Your task to perform on an android device: change notification settings in the gmail app Image 0: 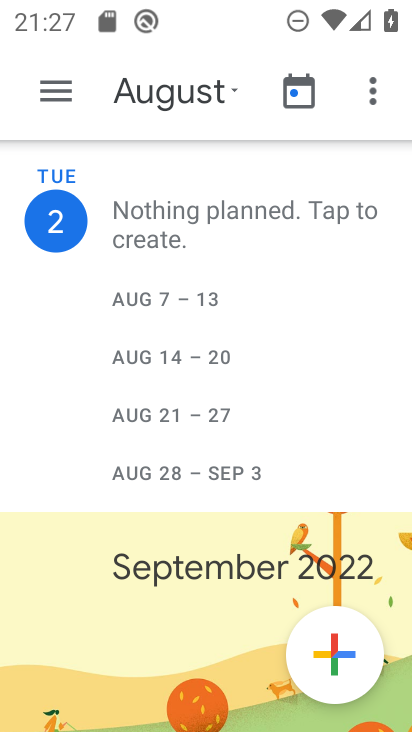
Step 0: drag from (212, 627) to (244, 220)
Your task to perform on an android device: change notification settings in the gmail app Image 1: 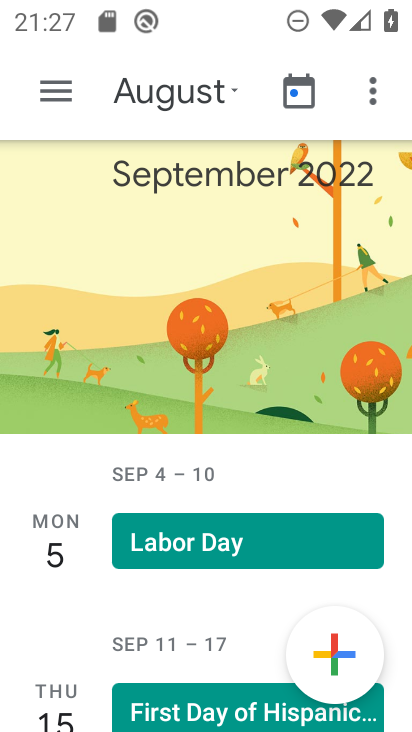
Step 1: press home button
Your task to perform on an android device: change notification settings in the gmail app Image 2: 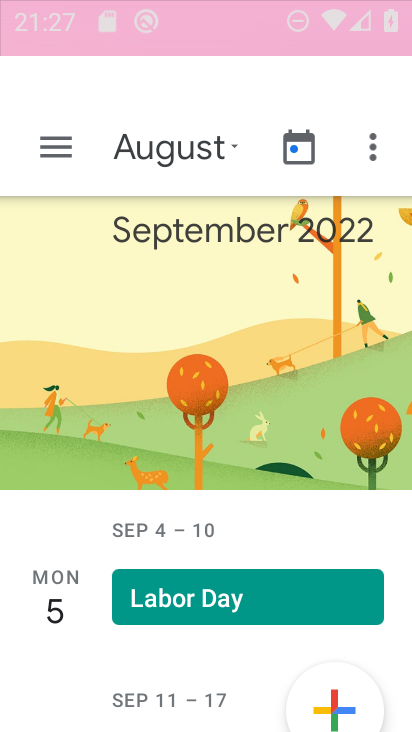
Step 2: drag from (212, 633) to (274, 103)
Your task to perform on an android device: change notification settings in the gmail app Image 3: 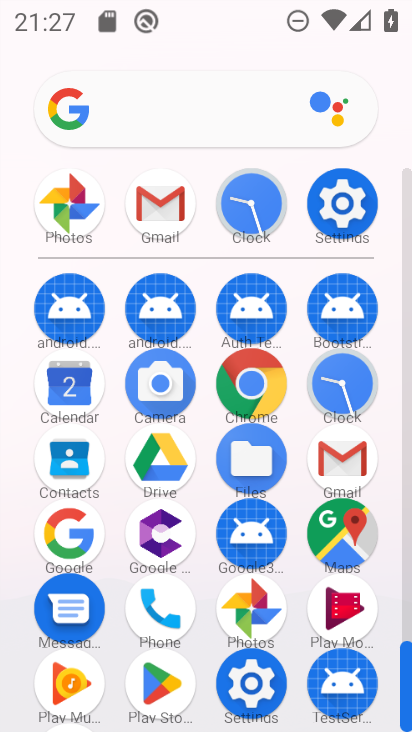
Step 3: click (333, 442)
Your task to perform on an android device: change notification settings in the gmail app Image 4: 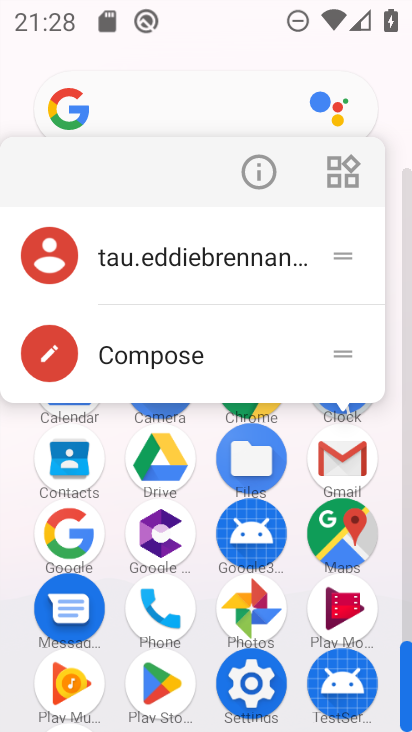
Step 4: click (270, 170)
Your task to perform on an android device: change notification settings in the gmail app Image 5: 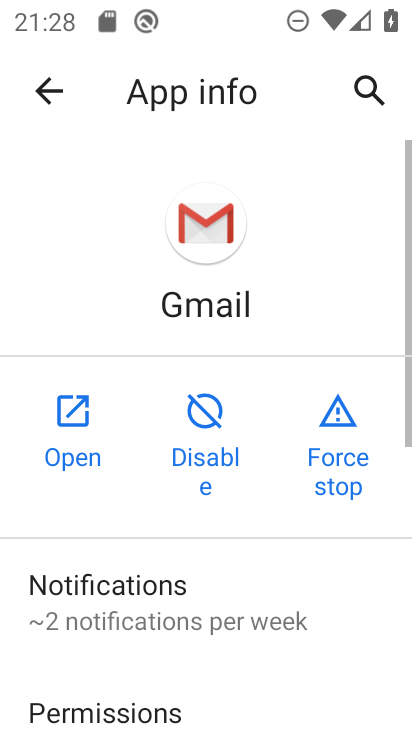
Step 5: click (81, 397)
Your task to perform on an android device: change notification settings in the gmail app Image 6: 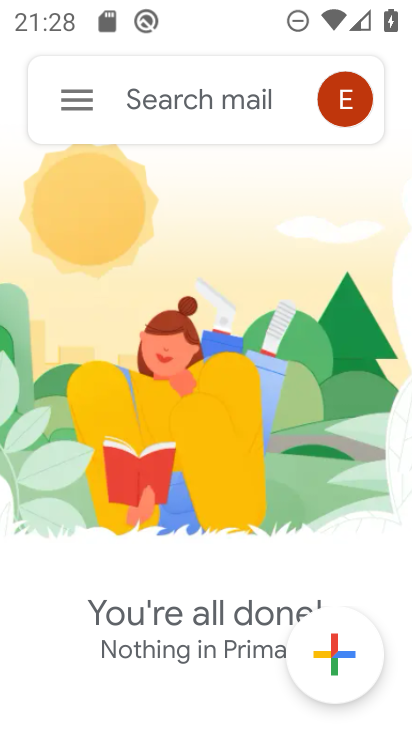
Step 6: drag from (218, 604) to (251, 312)
Your task to perform on an android device: change notification settings in the gmail app Image 7: 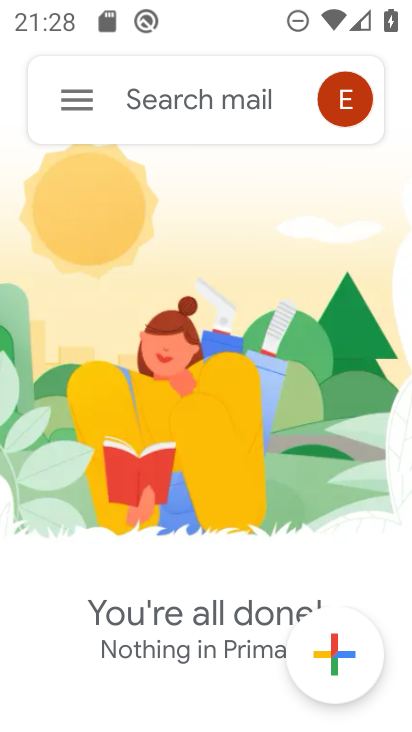
Step 7: click (65, 103)
Your task to perform on an android device: change notification settings in the gmail app Image 8: 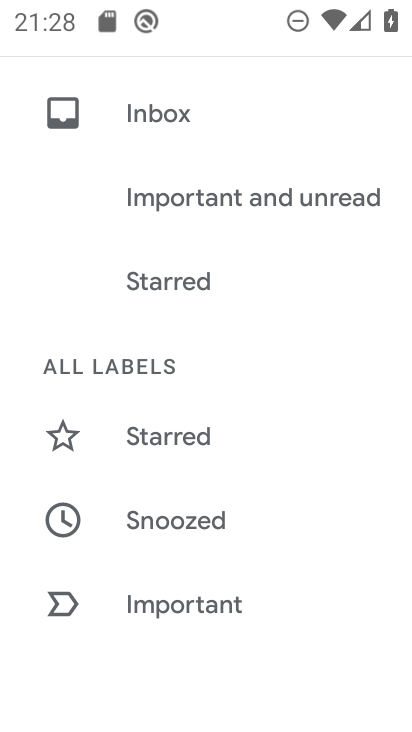
Step 8: drag from (187, 611) to (323, 175)
Your task to perform on an android device: change notification settings in the gmail app Image 9: 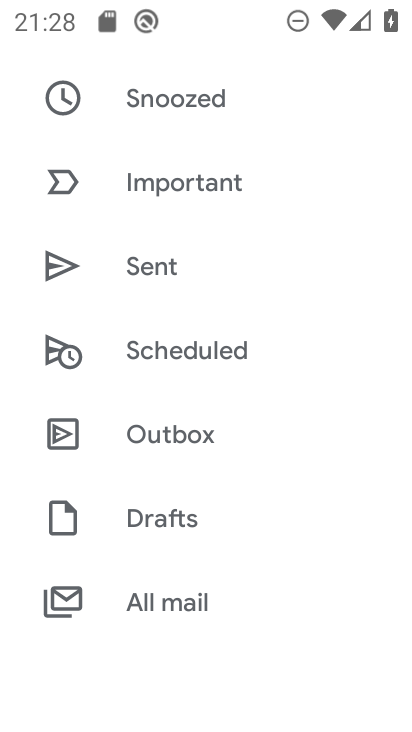
Step 9: drag from (204, 510) to (282, 120)
Your task to perform on an android device: change notification settings in the gmail app Image 10: 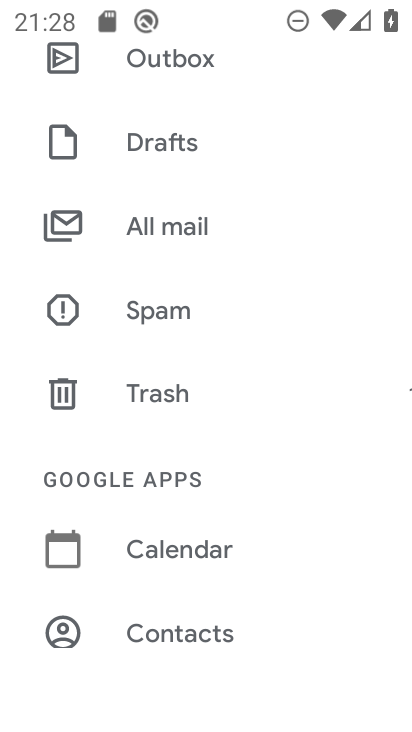
Step 10: drag from (163, 596) to (106, 87)
Your task to perform on an android device: change notification settings in the gmail app Image 11: 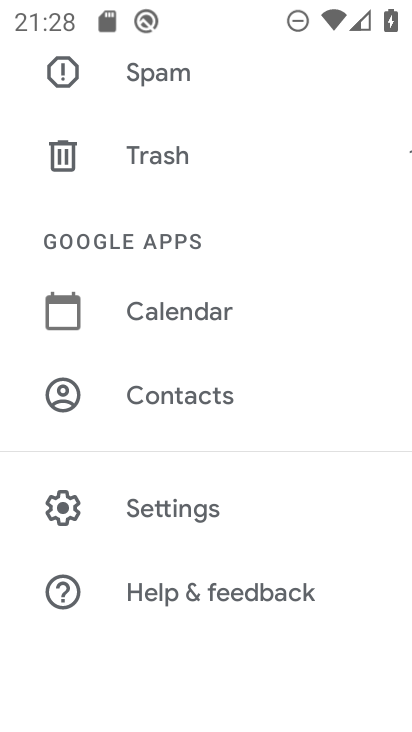
Step 11: click (185, 494)
Your task to perform on an android device: change notification settings in the gmail app Image 12: 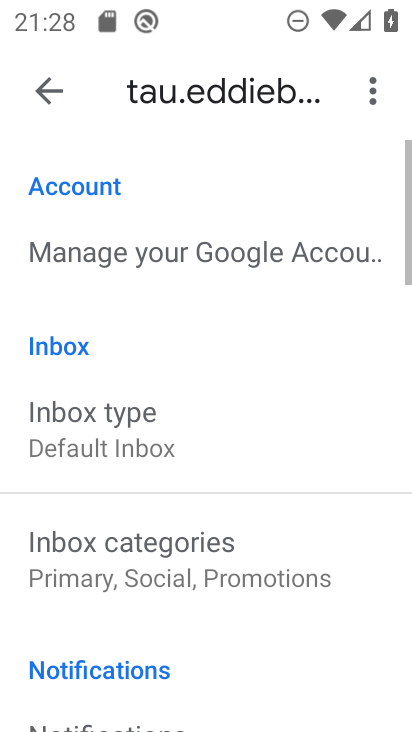
Step 12: drag from (240, 538) to (248, 288)
Your task to perform on an android device: change notification settings in the gmail app Image 13: 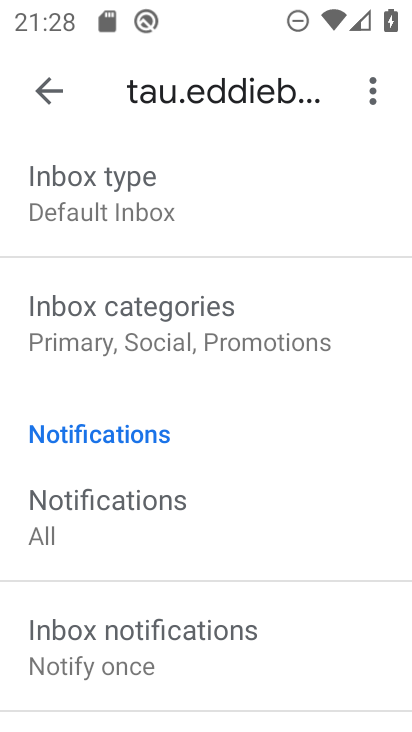
Step 13: drag from (176, 626) to (281, 194)
Your task to perform on an android device: change notification settings in the gmail app Image 14: 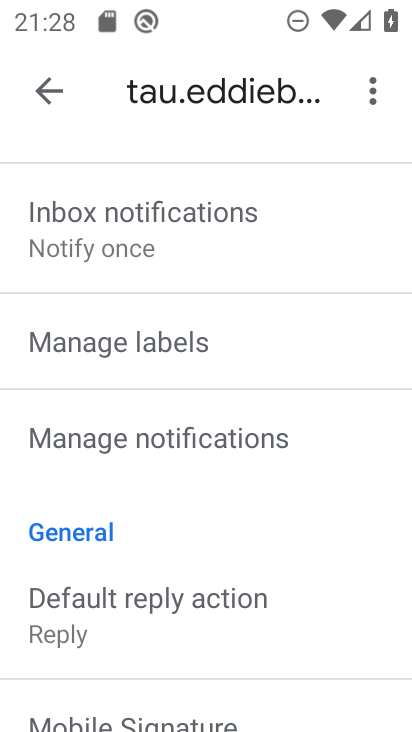
Step 14: click (174, 435)
Your task to perform on an android device: change notification settings in the gmail app Image 15: 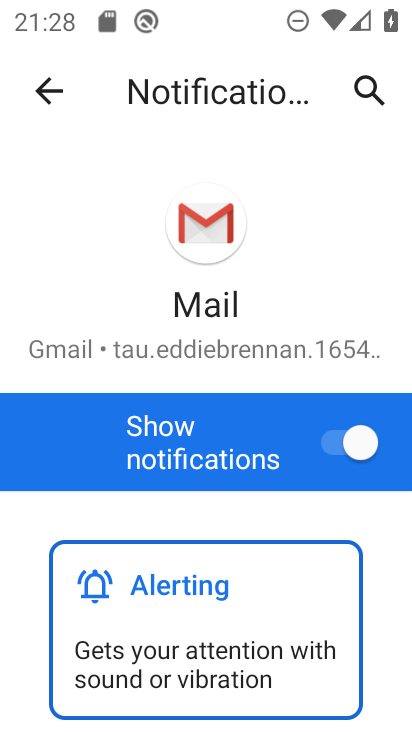
Step 15: click (343, 428)
Your task to perform on an android device: change notification settings in the gmail app Image 16: 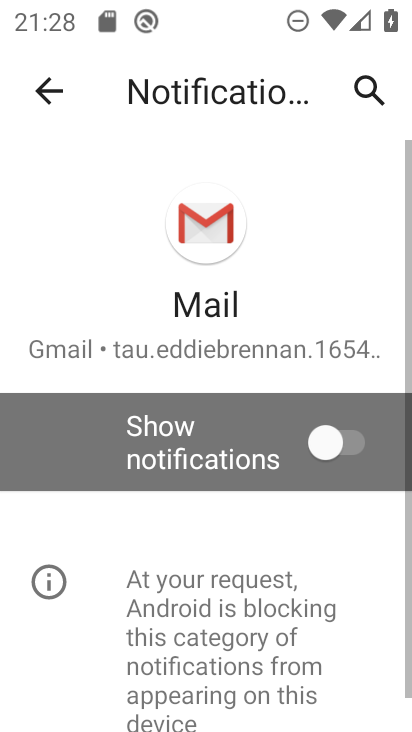
Step 16: task complete